Your task to perform on an android device: Is it going to rain today? Image 0: 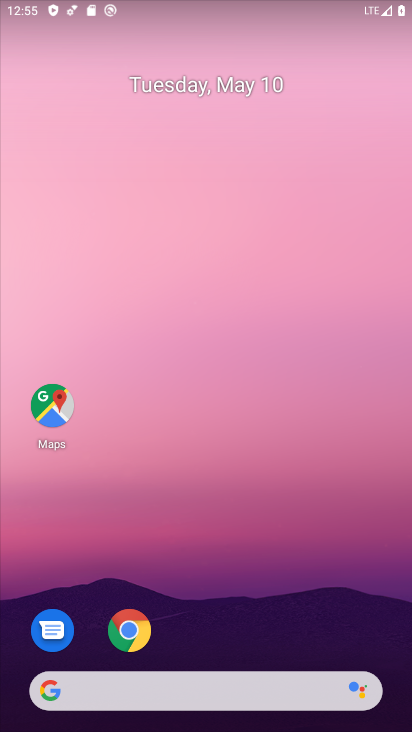
Step 0: drag from (194, 684) to (113, 3)
Your task to perform on an android device: Is it going to rain today? Image 1: 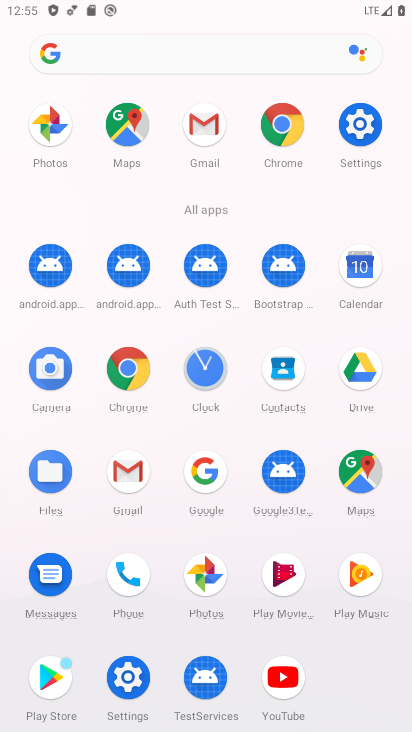
Step 1: click (202, 486)
Your task to perform on an android device: Is it going to rain today? Image 2: 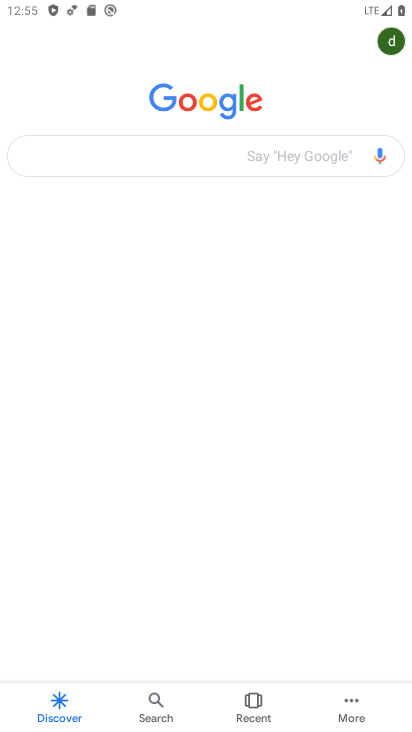
Step 2: click (153, 162)
Your task to perform on an android device: Is it going to rain today? Image 3: 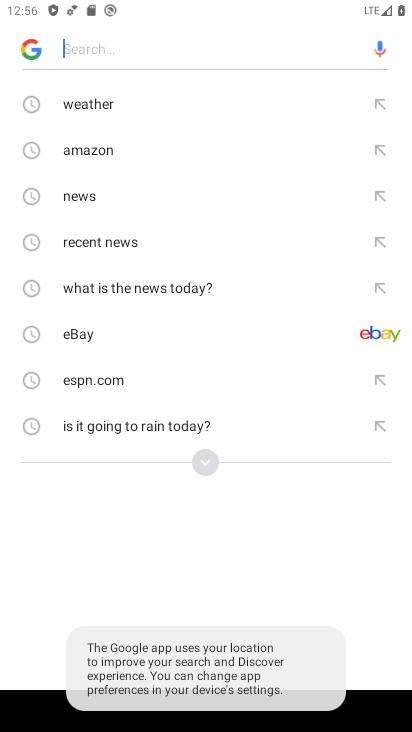
Step 3: click (118, 96)
Your task to perform on an android device: Is it going to rain today? Image 4: 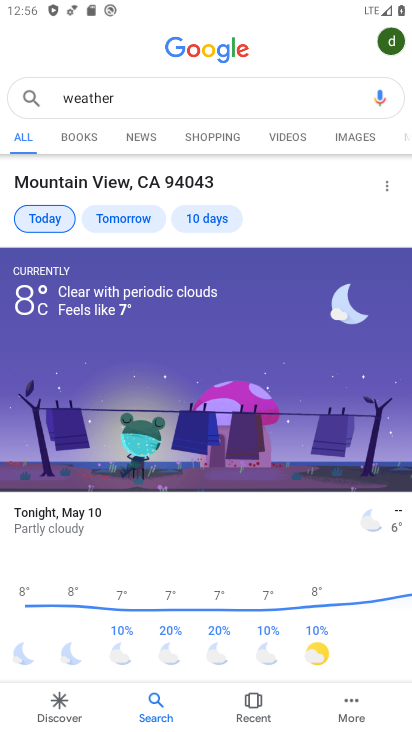
Step 4: task complete